Your task to perform on an android device: What's the weather today? Image 0: 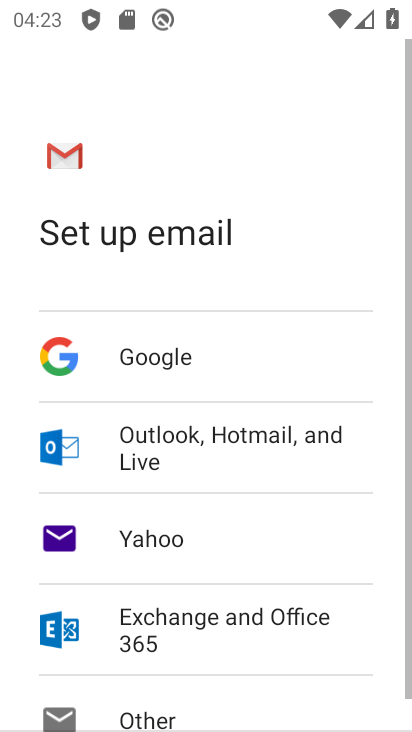
Step 0: press home button
Your task to perform on an android device: What's the weather today? Image 1: 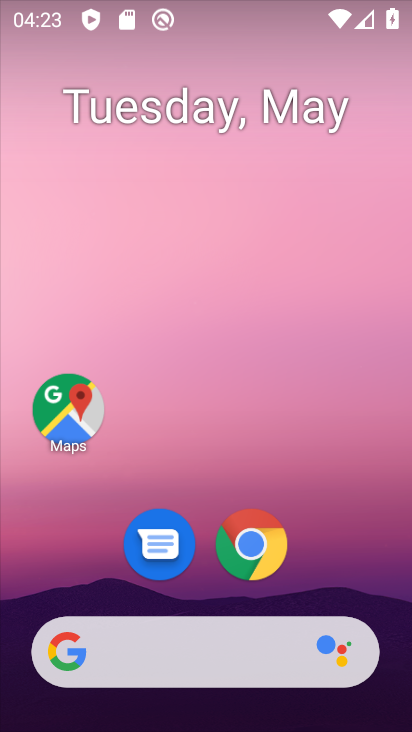
Step 1: drag from (197, 449) to (185, 289)
Your task to perform on an android device: What's the weather today? Image 2: 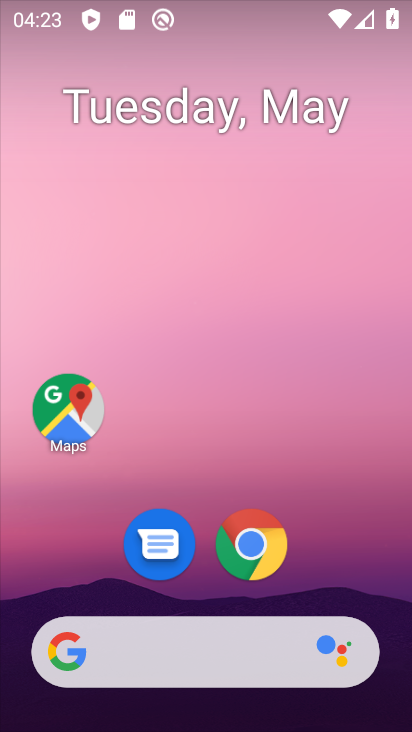
Step 2: drag from (227, 513) to (225, 216)
Your task to perform on an android device: What's the weather today? Image 3: 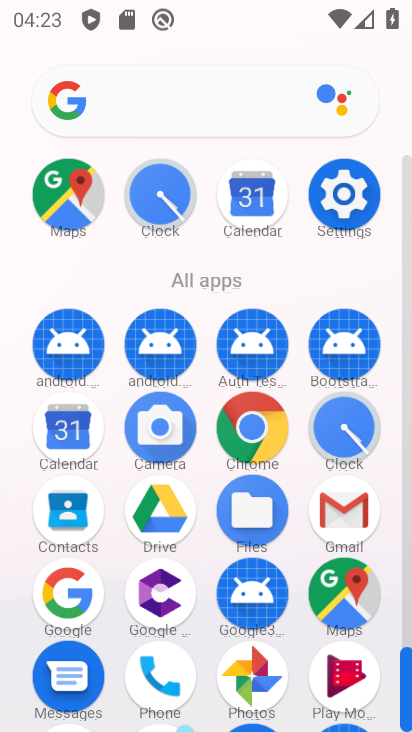
Step 3: click (60, 607)
Your task to perform on an android device: What's the weather today? Image 4: 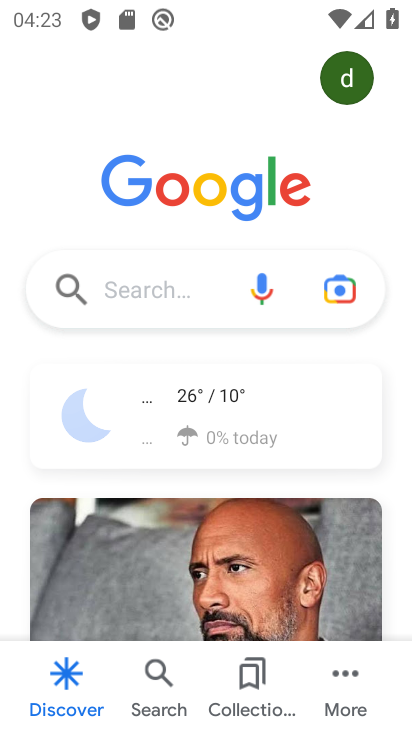
Step 4: click (175, 396)
Your task to perform on an android device: What's the weather today? Image 5: 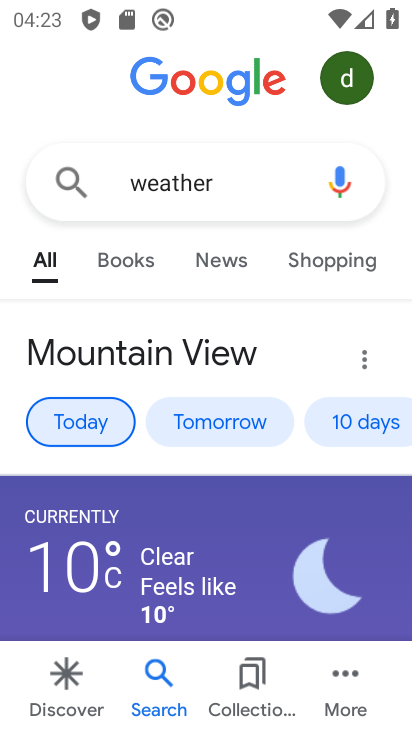
Step 5: task complete